Your task to perform on an android device: change notifications settings Image 0: 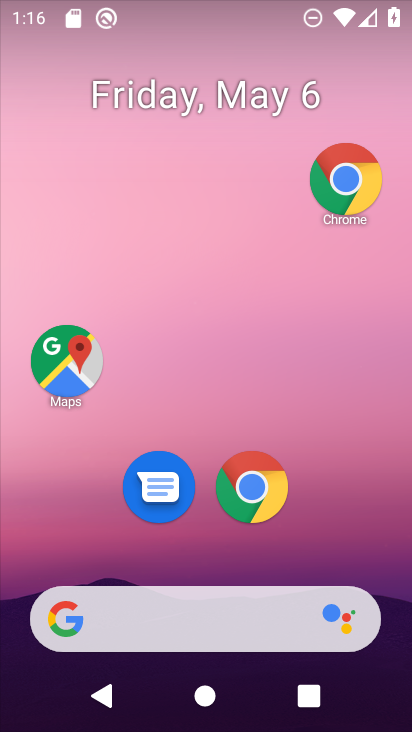
Step 0: drag from (314, 563) to (280, 185)
Your task to perform on an android device: change notifications settings Image 1: 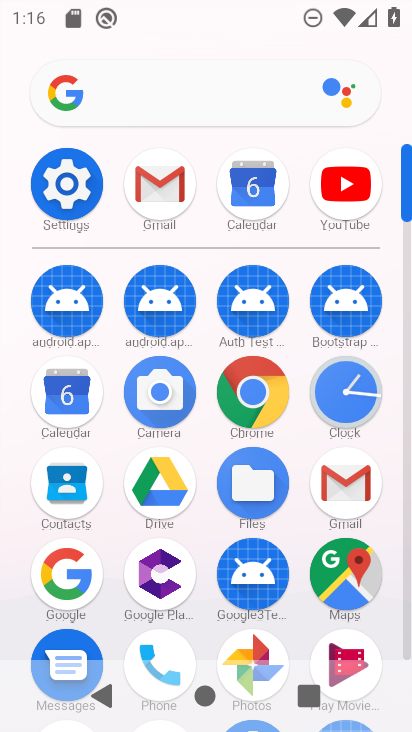
Step 1: click (74, 229)
Your task to perform on an android device: change notifications settings Image 2: 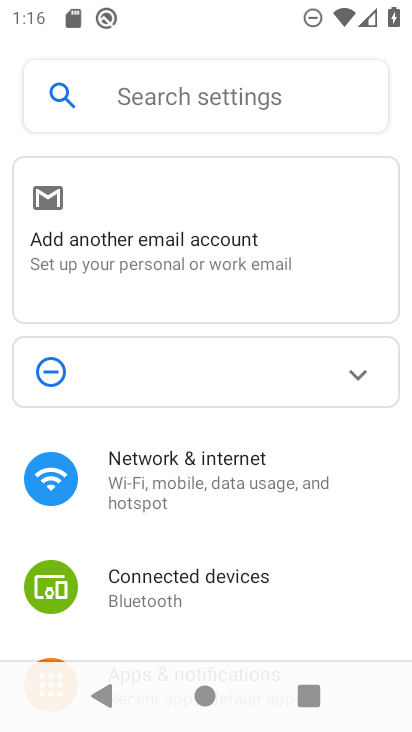
Step 2: drag from (189, 513) to (215, 88)
Your task to perform on an android device: change notifications settings Image 3: 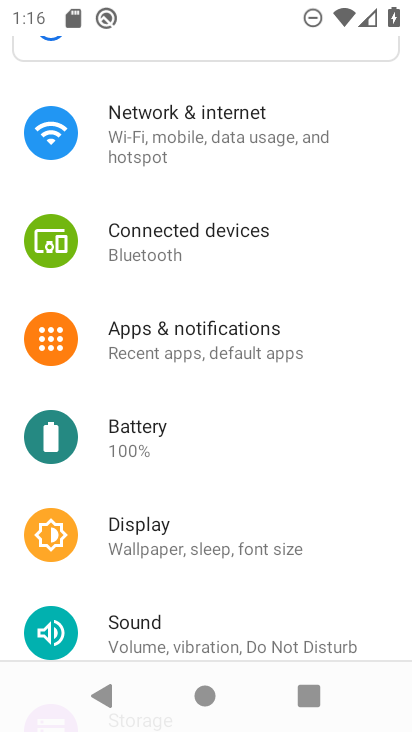
Step 3: drag from (192, 581) to (205, 400)
Your task to perform on an android device: change notifications settings Image 4: 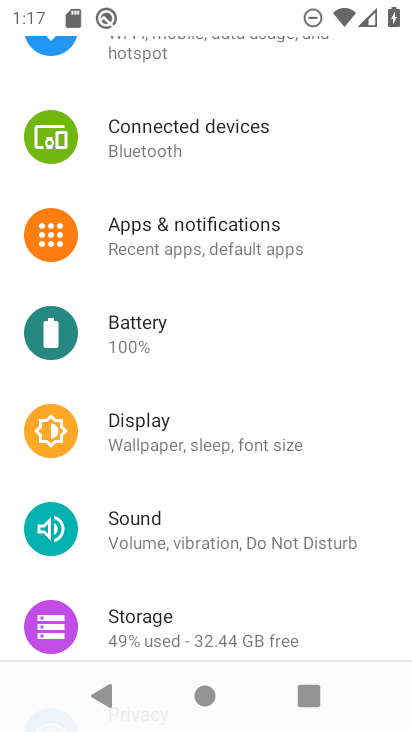
Step 4: click (256, 265)
Your task to perform on an android device: change notifications settings Image 5: 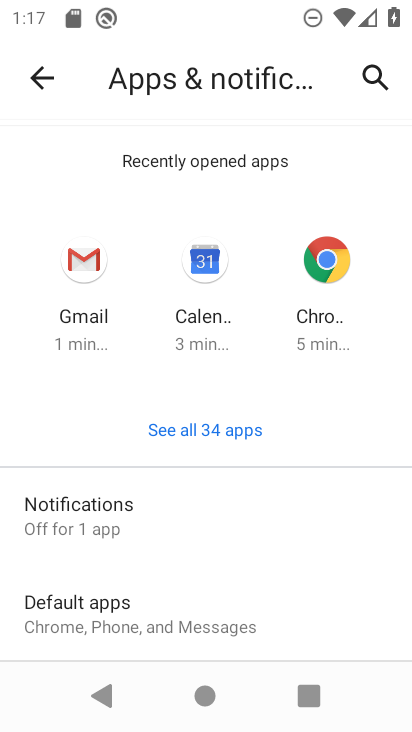
Step 5: task complete